Your task to perform on an android device: open a bookmark in the chrome app Image 0: 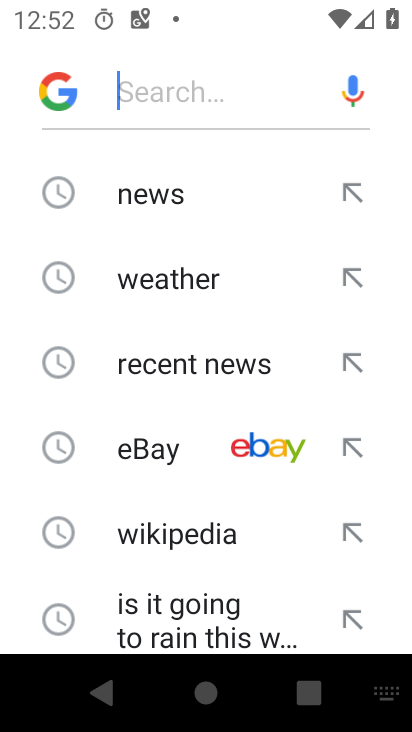
Step 0: press home button
Your task to perform on an android device: open a bookmark in the chrome app Image 1: 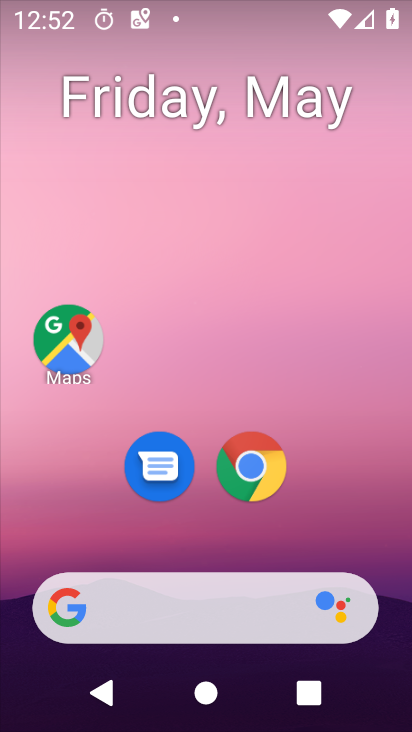
Step 1: drag from (389, 619) to (346, 235)
Your task to perform on an android device: open a bookmark in the chrome app Image 2: 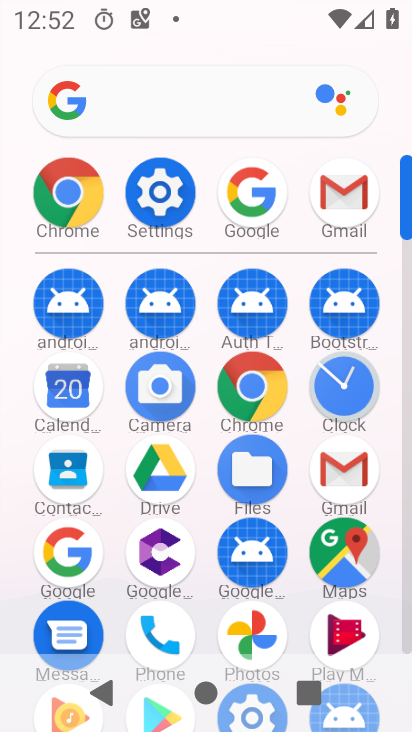
Step 2: click (258, 387)
Your task to perform on an android device: open a bookmark in the chrome app Image 3: 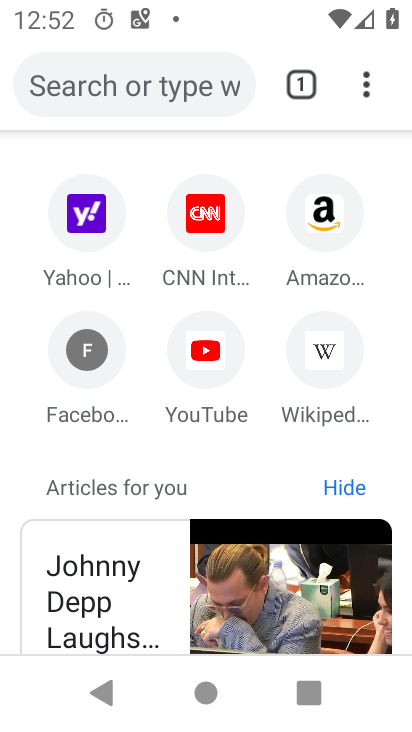
Step 3: click (375, 83)
Your task to perform on an android device: open a bookmark in the chrome app Image 4: 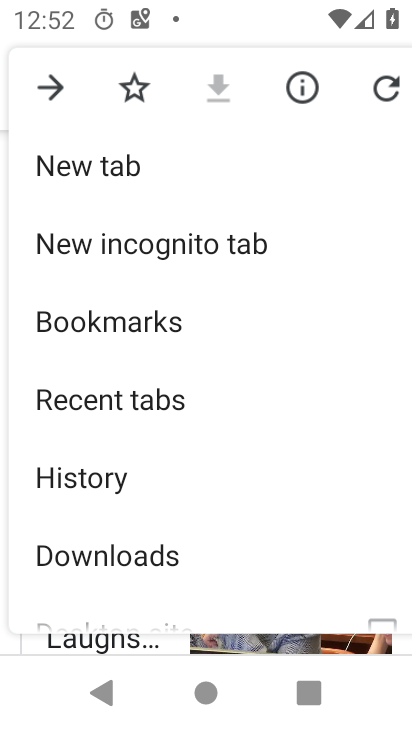
Step 4: click (159, 334)
Your task to perform on an android device: open a bookmark in the chrome app Image 5: 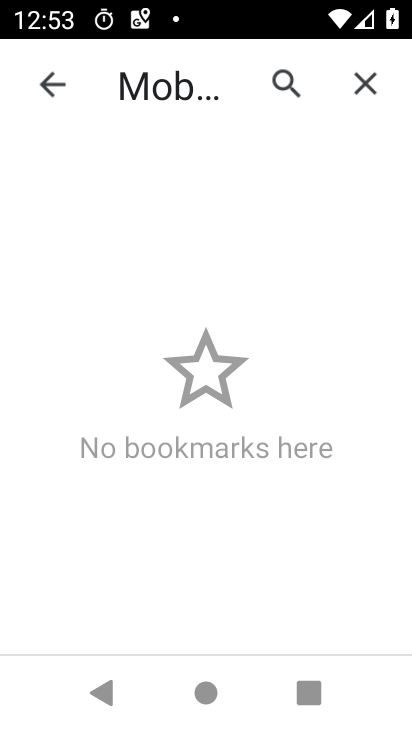
Step 5: task complete